Your task to perform on an android device: Go to battery settings Image 0: 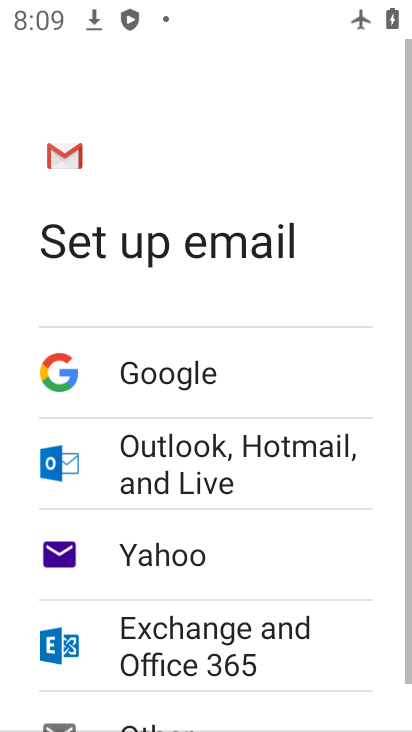
Step 0: press home button
Your task to perform on an android device: Go to battery settings Image 1: 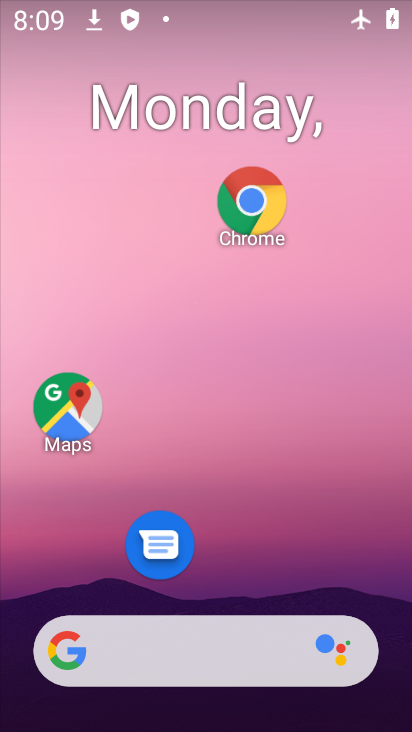
Step 1: drag from (256, 576) to (184, 75)
Your task to perform on an android device: Go to battery settings Image 2: 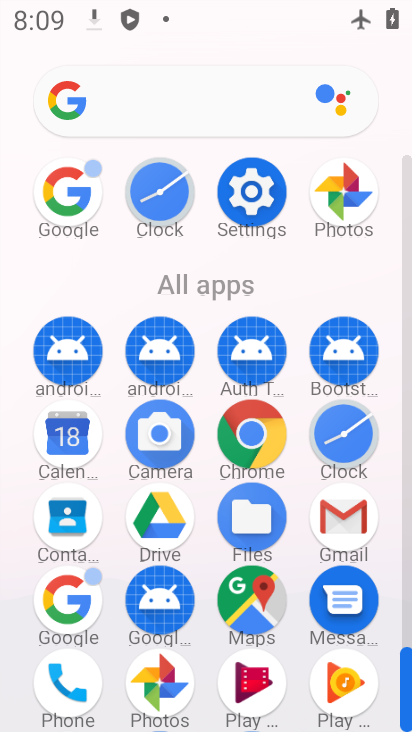
Step 2: click (241, 173)
Your task to perform on an android device: Go to battery settings Image 3: 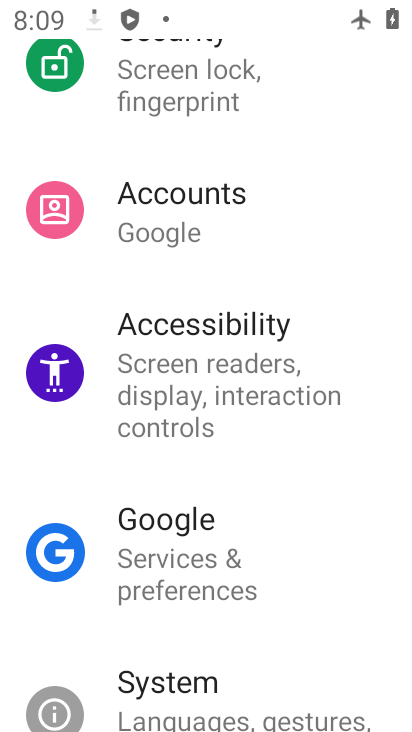
Step 3: drag from (184, 131) to (184, 413)
Your task to perform on an android device: Go to battery settings Image 4: 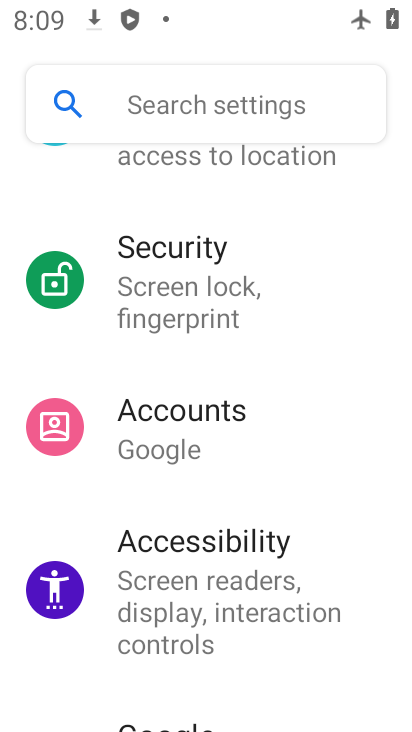
Step 4: drag from (223, 200) to (230, 527)
Your task to perform on an android device: Go to battery settings Image 5: 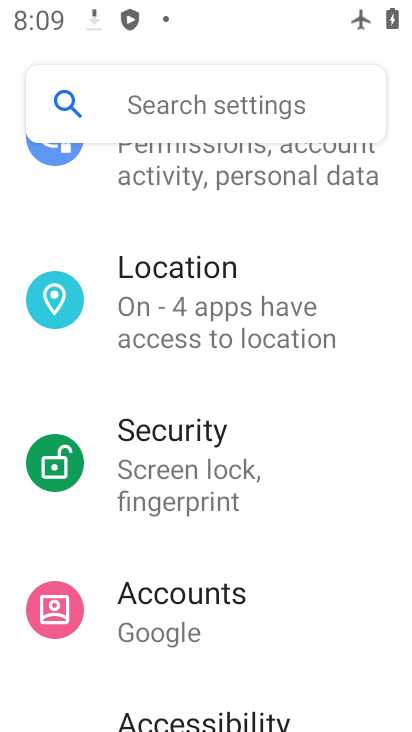
Step 5: drag from (236, 228) to (237, 577)
Your task to perform on an android device: Go to battery settings Image 6: 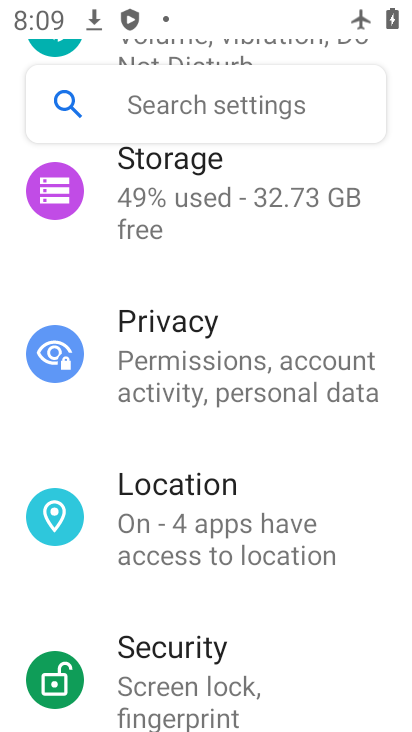
Step 6: drag from (226, 259) to (228, 537)
Your task to perform on an android device: Go to battery settings Image 7: 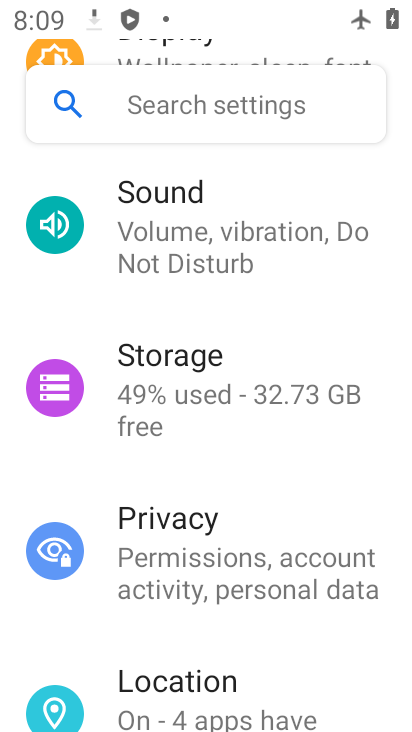
Step 7: drag from (268, 190) to (283, 507)
Your task to perform on an android device: Go to battery settings Image 8: 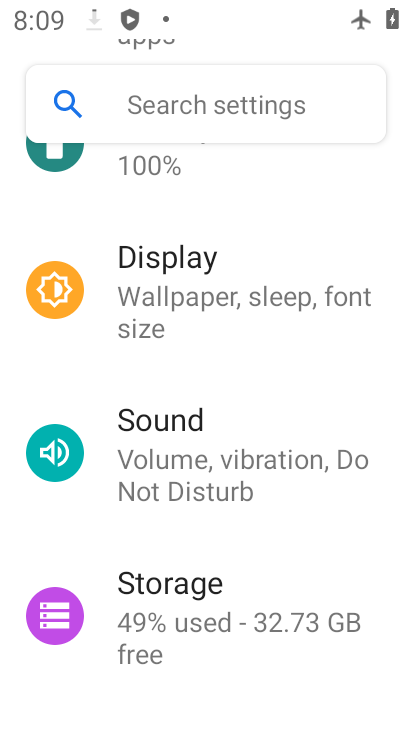
Step 8: drag from (237, 239) to (241, 526)
Your task to perform on an android device: Go to battery settings Image 9: 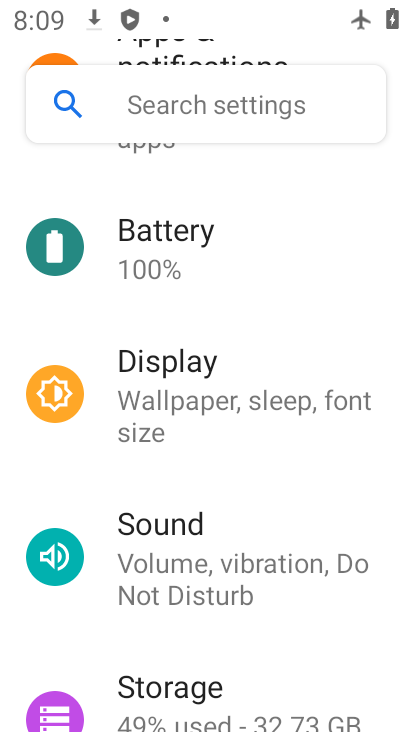
Step 9: click (151, 262)
Your task to perform on an android device: Go to battery settings Image 10: 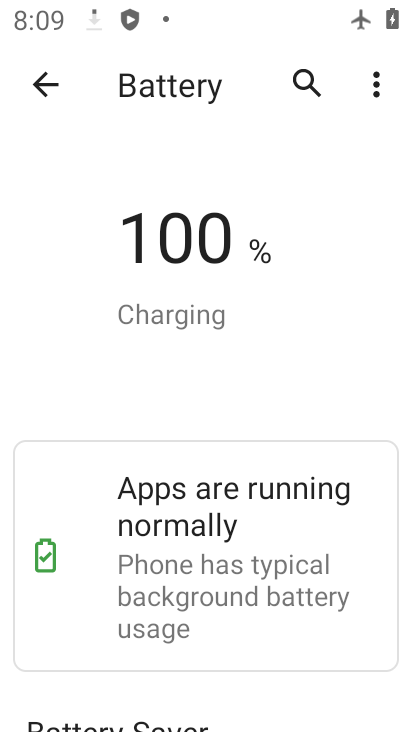
Step 10: task complete